Your task to perform on an android device: toggle airplane mode Image 0: 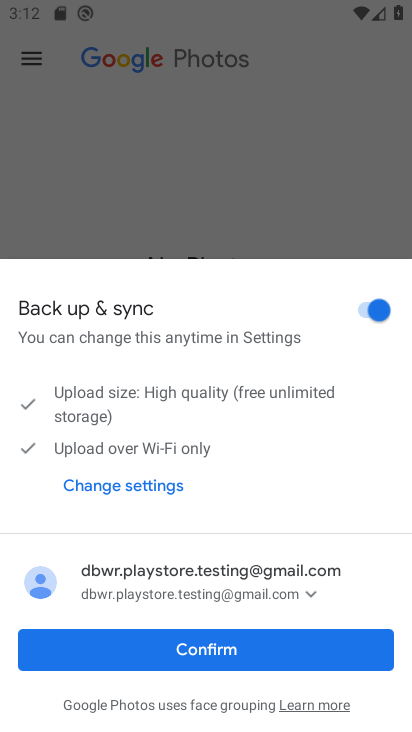
Step 0: press home button
Your task to perform on an android device: toggle airplane mode Image 1: 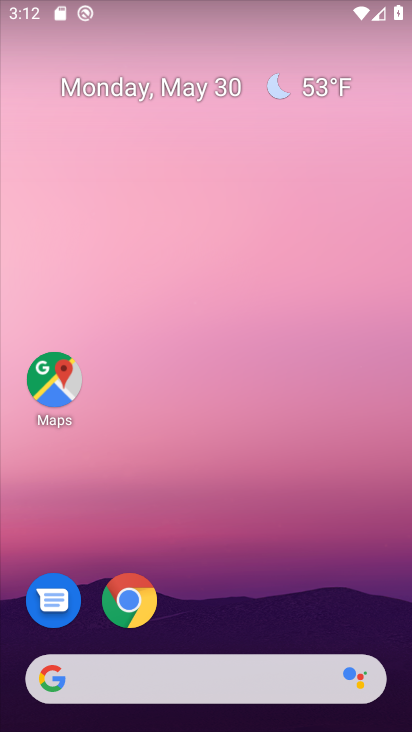
Step 1: drag from (357, 599) to (345, 40)
Your task to perform on an android device: toggle airplane mode Image 2: 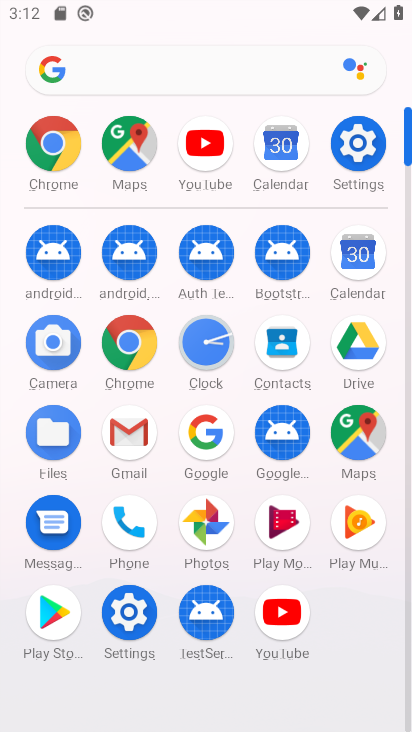
Step 2: click (343, 148)
Your task to perform on an android device: toggle airplane mode Image 3: 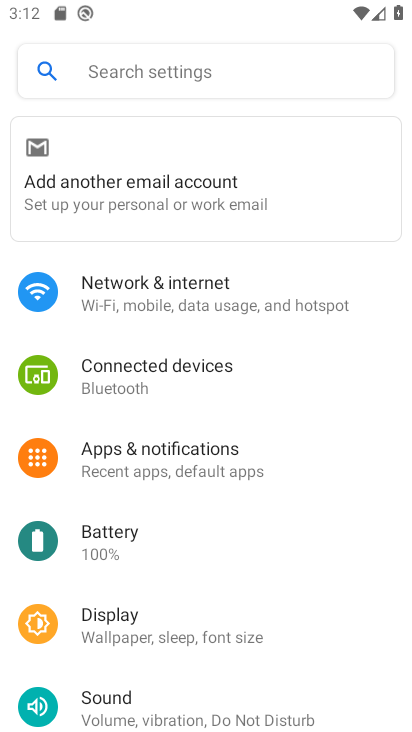
Step 3: click (200, 317)
Your task to perform on an android device: toggle airplane mode Image 4: 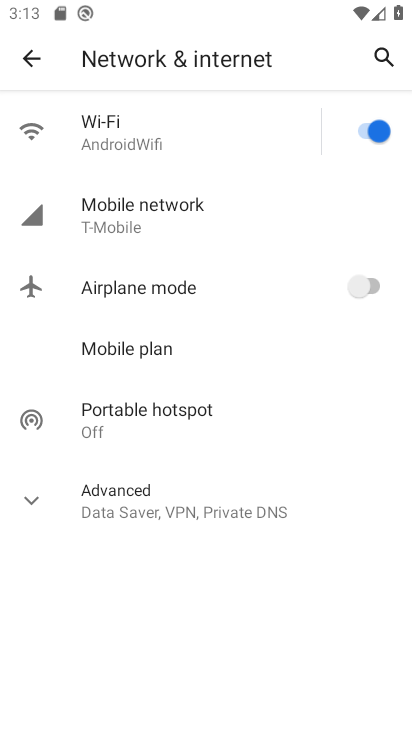
Step 4: click (374, 291)
Your task to perform on an android device: toggle airplane mode Image 5: 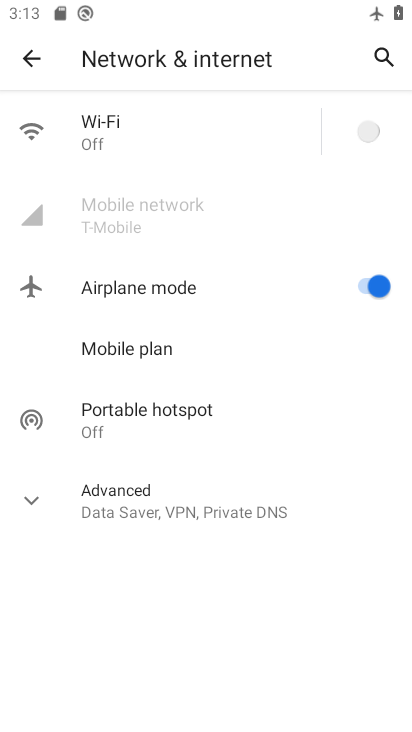
Step 5: task complete